Your task to perform on an android device: Open calendar and show me the first week of next month Image 0: 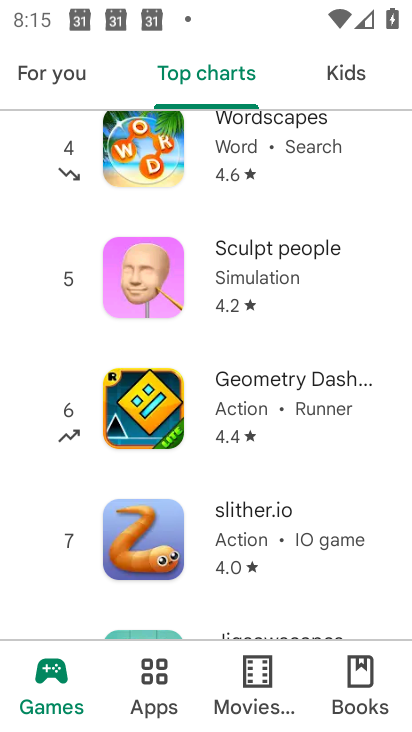
Step 0: press home button
Your task to perform on an android device: Open calendar and show me the first week of next month Image 1: 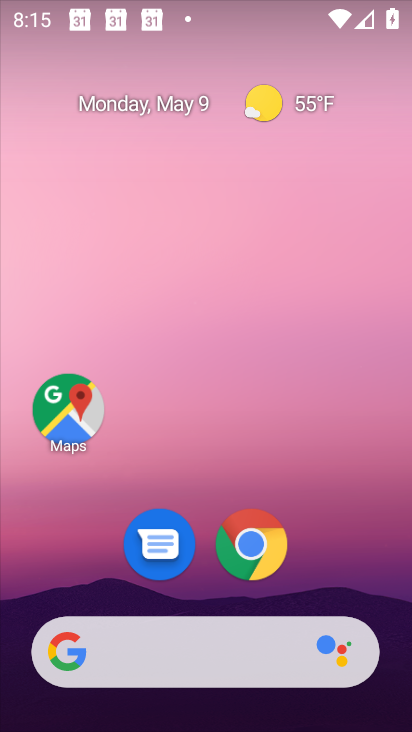
Step 1: drag from (202, 574) to (312, 61)
Your task to perform on an android device: Open calendar and show me the first week of next month Image 2: 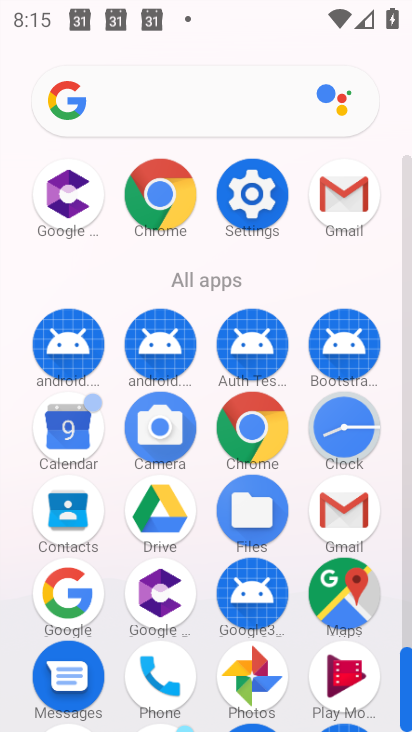
Step 2: click (52, 428)
Your task to perform on an android device: Open calendar and show me the first week of next month Image 3: 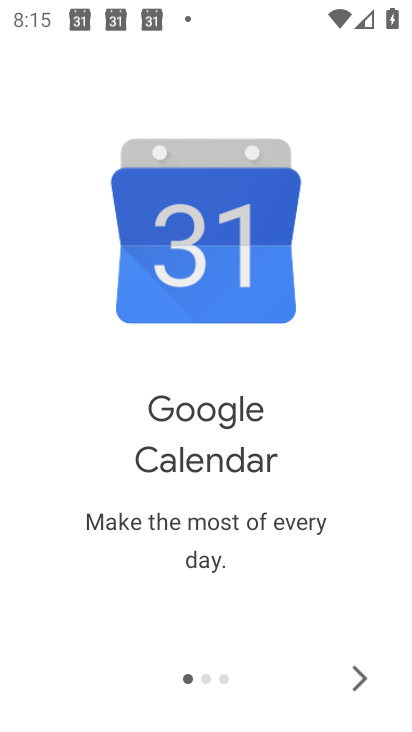
Step 3: click (355, 678)
Your task to perform on an android device: Open calendar and show me the first week of next month Image 4: 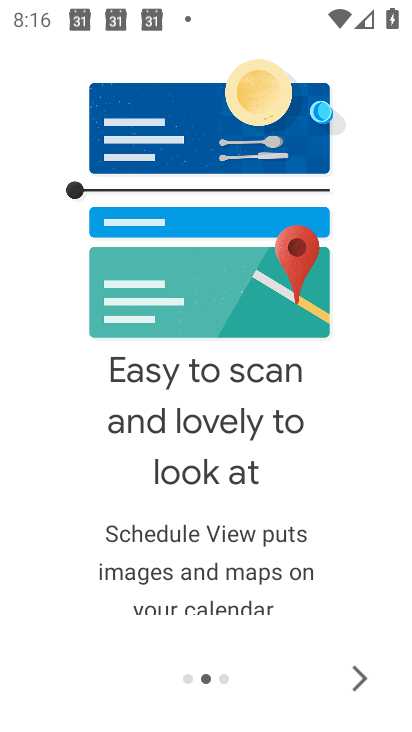
Step 4: click (345, 682)
Your task to perform on an android device: Open calendar and show me the first week of next month Image 5: 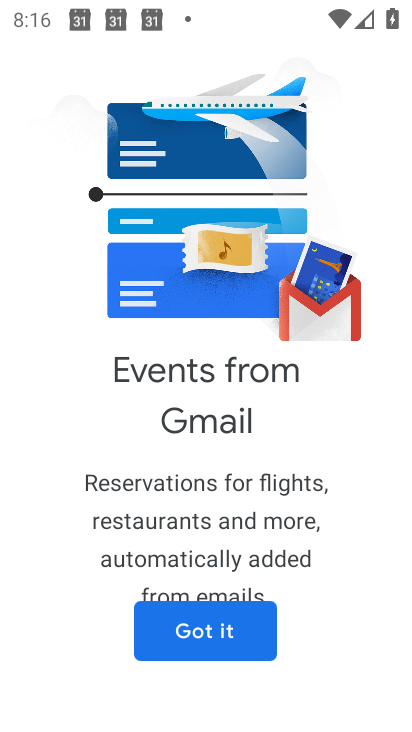
Step 5: click (213, 637)
Your task to perform on an android device: Open calendar and show me the first week of next month Image 6: 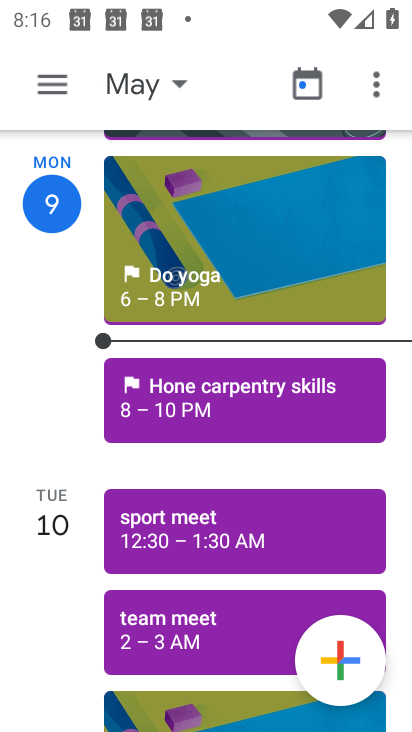
Step 6: click (161, 74)
Your task to perform on an android device: Open calendar and show me the first week of next month Image 7: 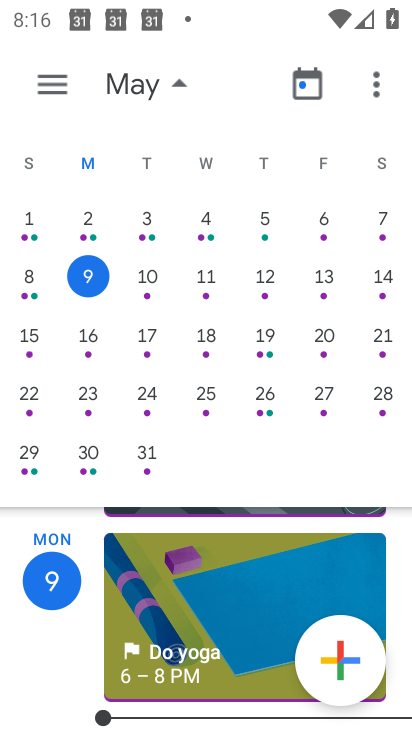
Step 7: drag from (348, 294) to (0, 273)
Your task to perform on an android device: Open calendar and show me the first week of next month Image 8: 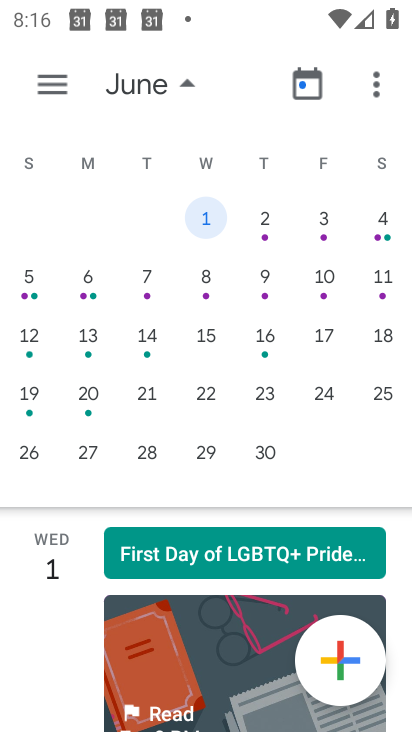
Step 8: click (252, 214)
Your task to perform on an android device: Open calendar and show me the first week of next month Image 9: 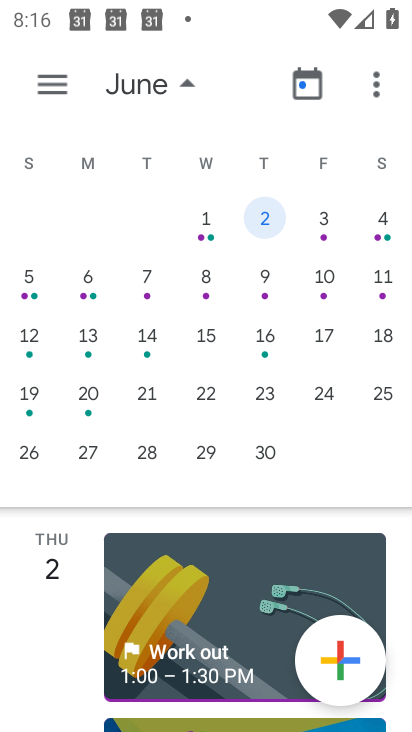
Step 9: click (359, 220)
Your task to perform on an android device: Open calendar and show me the first week of next month Image 10: 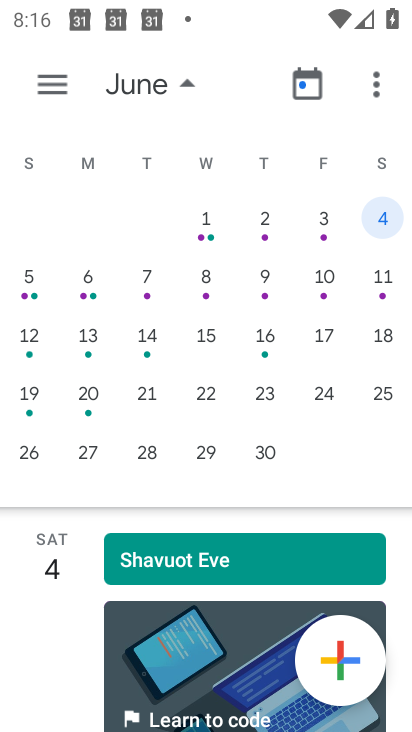
Step 10: click (381, 224)
Your task to perform on an android device: Open calendar and show me the first week of next month Image 11: 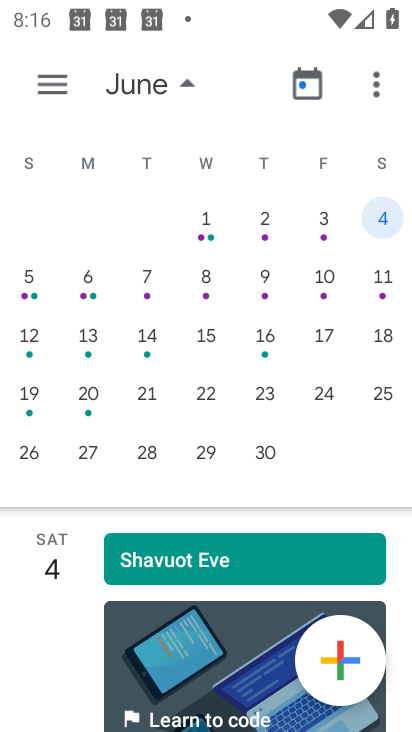
Step 11: task complete